Your task to perform on an android device: Go to Wikipedia Image 0: 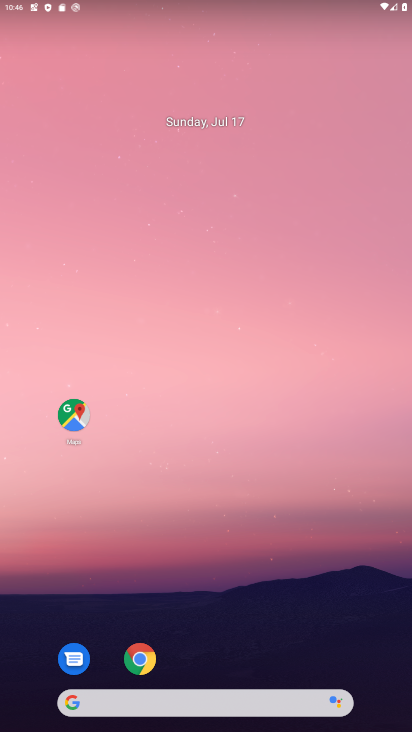
Step 0: drag from (329, 640) to (280, 0)
Your task to perform on an android device: Go to Wikipedia Image 1: 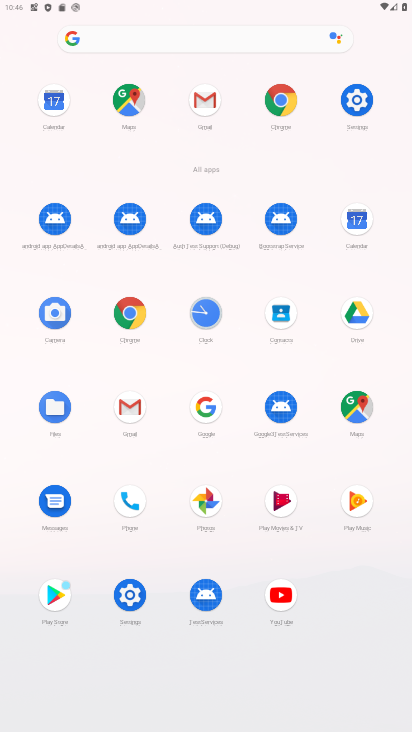
Step 1: click (283, 96)
Your task to perform on an android device: Go to Wikipedia Image 2: 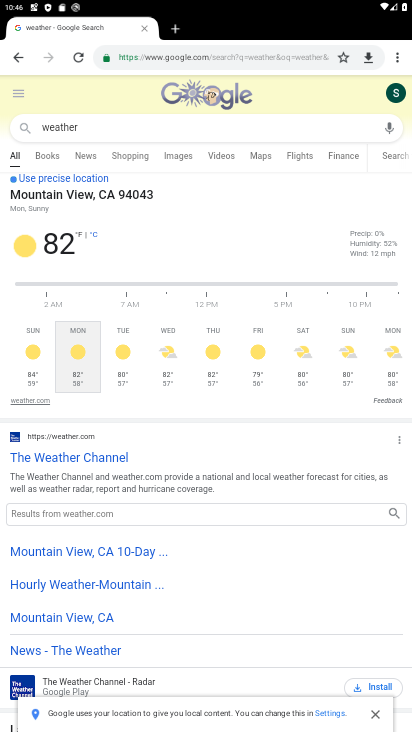
Step 2: click (239, 60)
Your task to perform on an android device: Go to Wikipedia Image 3: 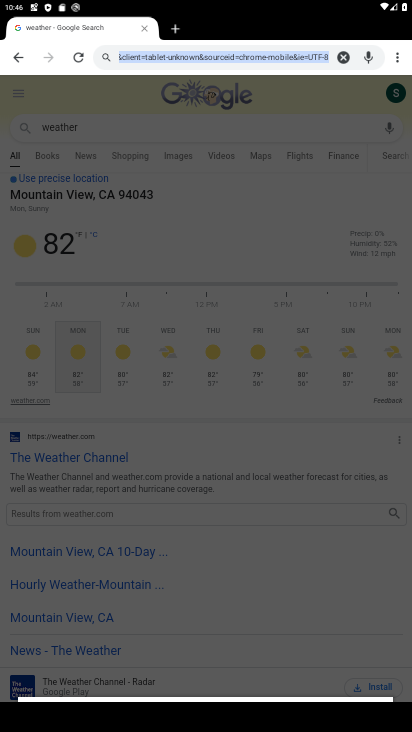
Step 3: type "wikipedia"
Your task to perform on an android device: Go to Wikipedia Image 4: 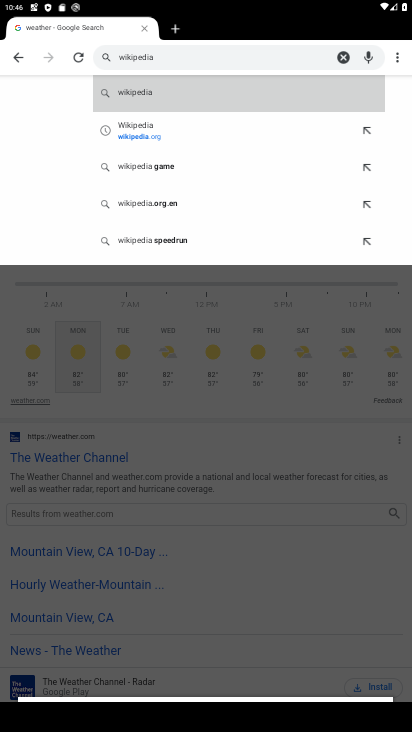
Step 4: click (135, 129)
Your task to perform on an android device: Go to Wikipedia Image 5: 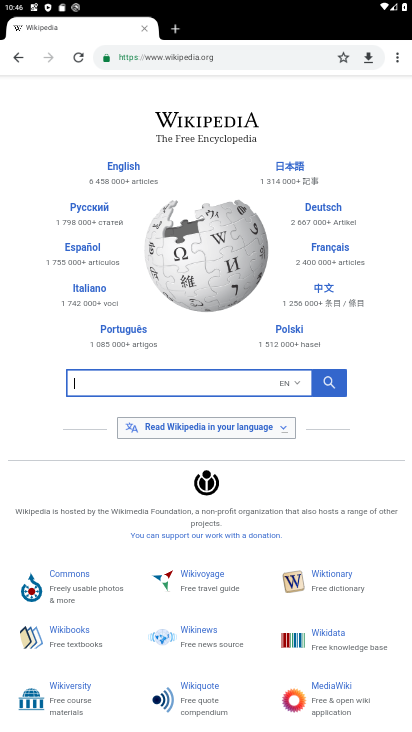
Step 5: task complete